Your task to perform on an android device: change text size in settings app Image 0: 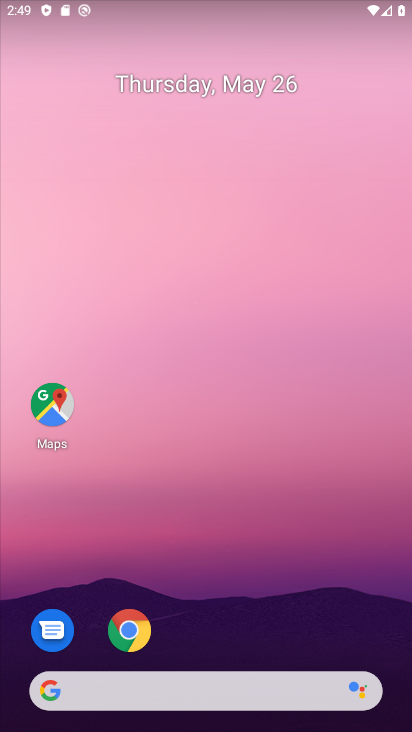
Step 0: drag from (268, 623) to (278, 194)
Your task to perform on an android device: change text size in settings app Image 1: 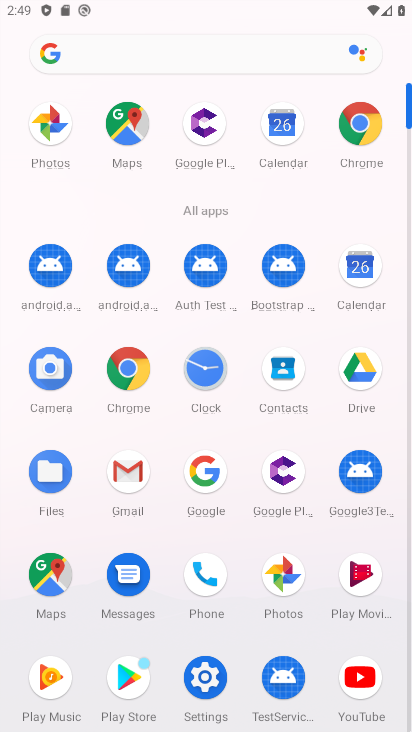
Step 1: click (206, 675)
Your task to perform on an android device: change text size in settings app Image 2: 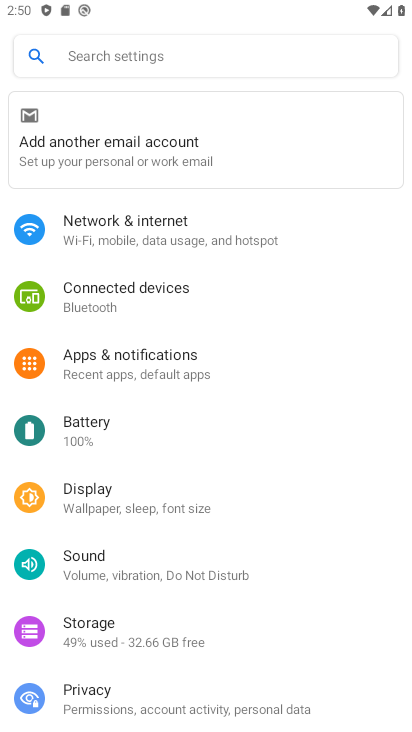
Step 2: drag from (154, 532) to (212, 449)
Your task to perform on an android device: change text size in settings app Image 3: 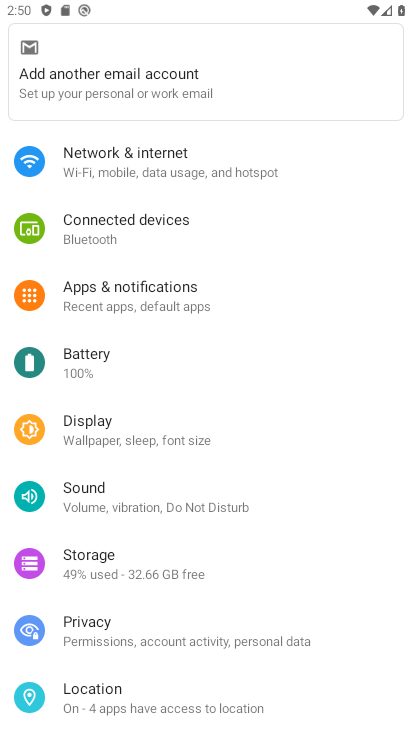
Step 3: drag from (114, 598) to (194, 503)
Your task to perform on an android device: change text size in settings app Image 4: 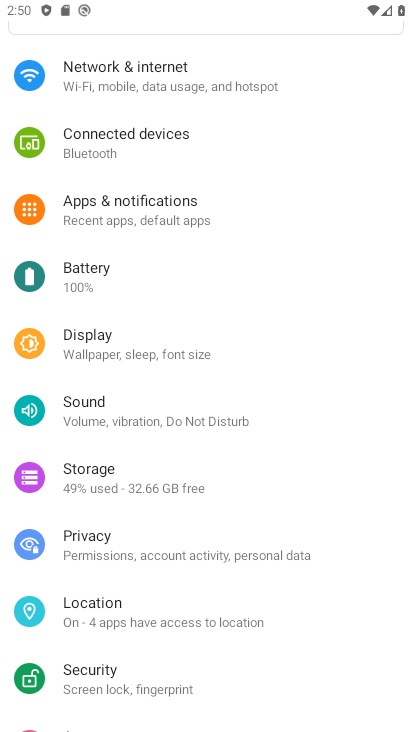
Step 4: drag from (126, 564) to (194, 487)
Your task to perform on an android device: change text size in settings app Image 5: 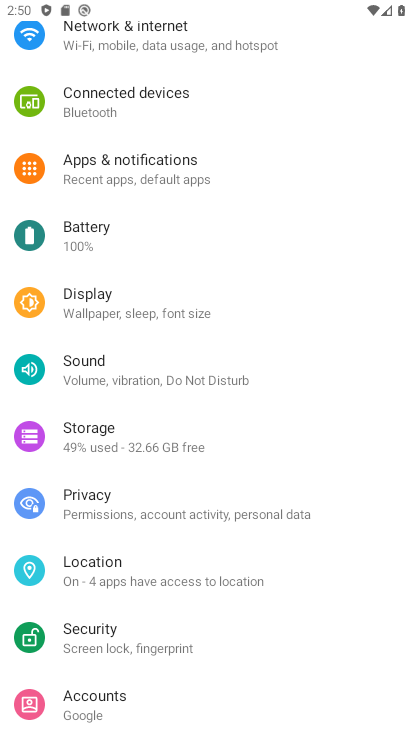
Step 5: drag from (127, 607) to (230, 488)
Your task to perform on an android device: change text size in settings app Image 6: 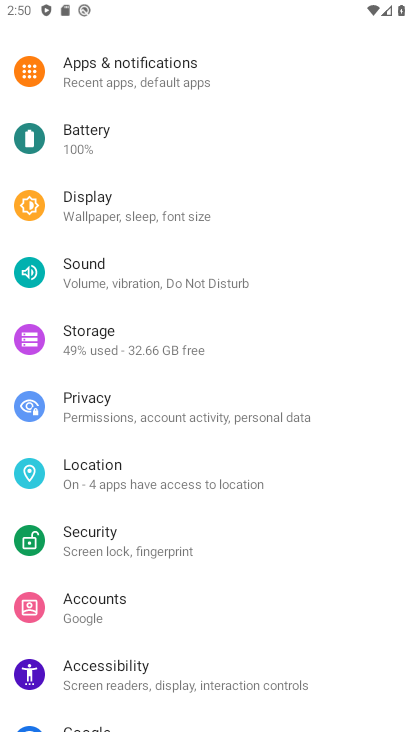
Step 6: drag from (123, 598) to (145, 534)
Your task to perform on an android device: change text size in settings app Image 7: 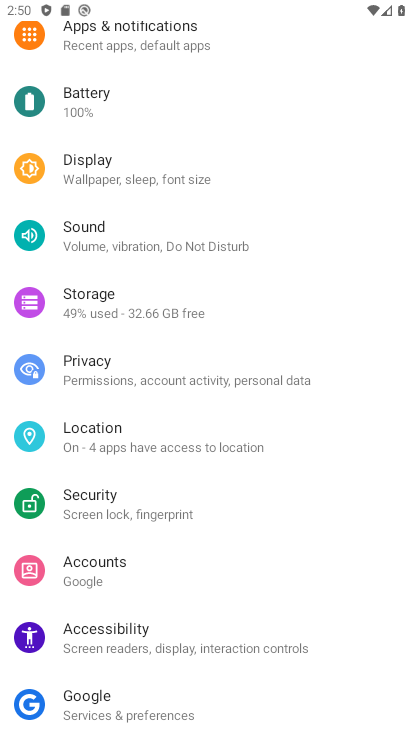
Step 7: click (113, 634)
Your task to perform on an android device: change text size in settings app Image 8: 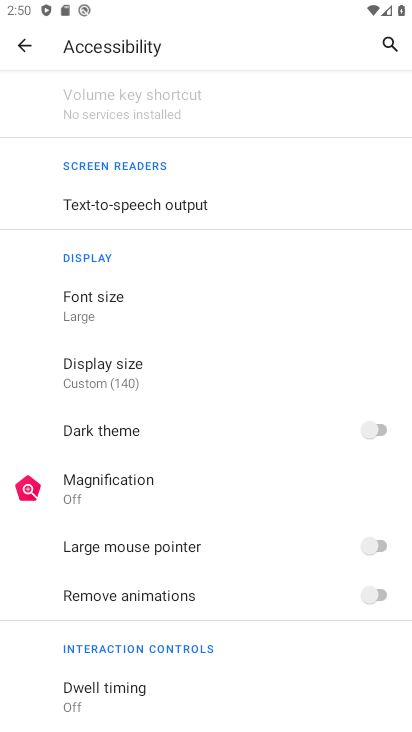
Step 8: click (103, 296)
Your task to perform on an android device: change text size in settings app Image 9: 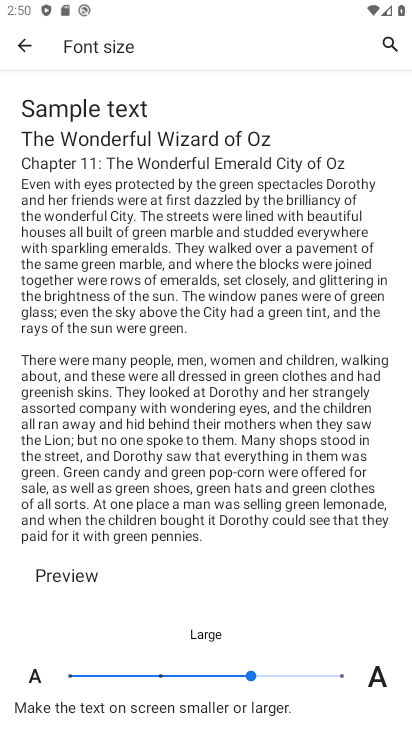
Step 9: click (163, 673)
Your task to perform on an android device: change text size in settings app Image 10: 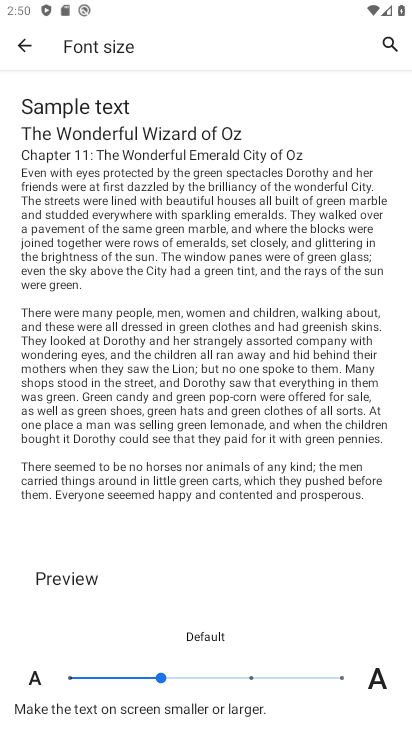
Step 10: task complete